Your task to perform on an android device: Clear the shopping cart on target.com. Search for "usb-a" on target.com, select the first entry, and add it to the cart. Image 0: 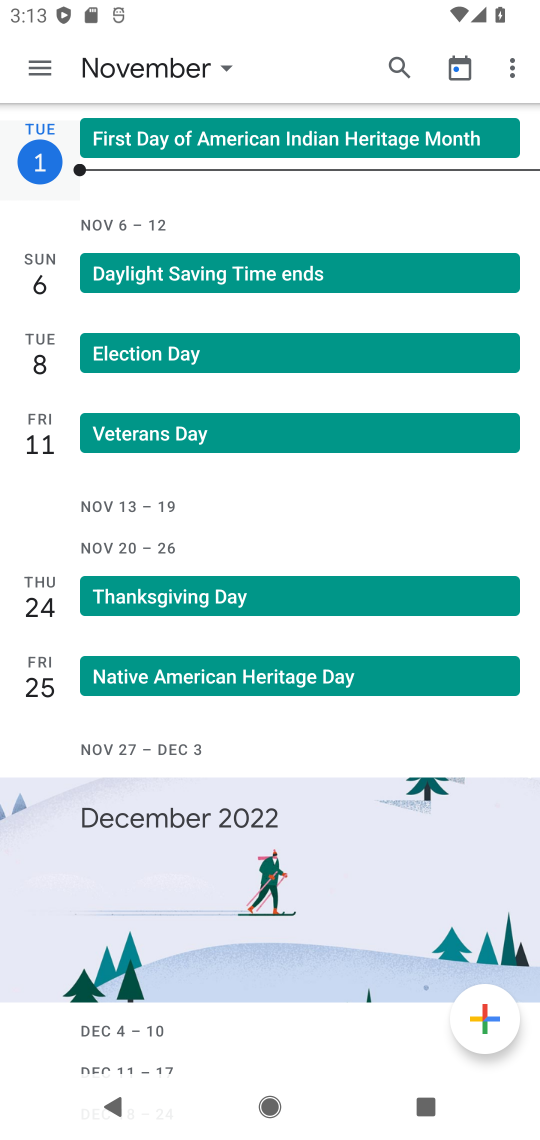
Step 0: press home button
Your task to perform on an android device: Clear the shopping cart on target.com. Search for "usb-a" on target.com, select the first entry, and add it to the cart. Image 1: 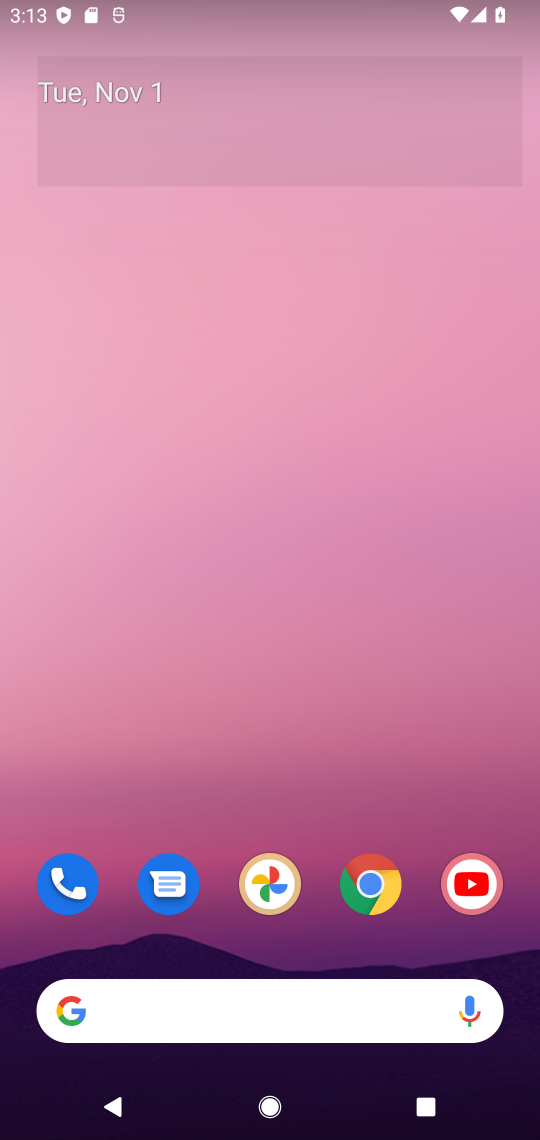
Step 1: click (380, 884)
Your task to perform on an android device: Clear the shopping cart on target.com. Search for "usb-a" on target.com, select the first entry, and add it to the cart. Image 2: 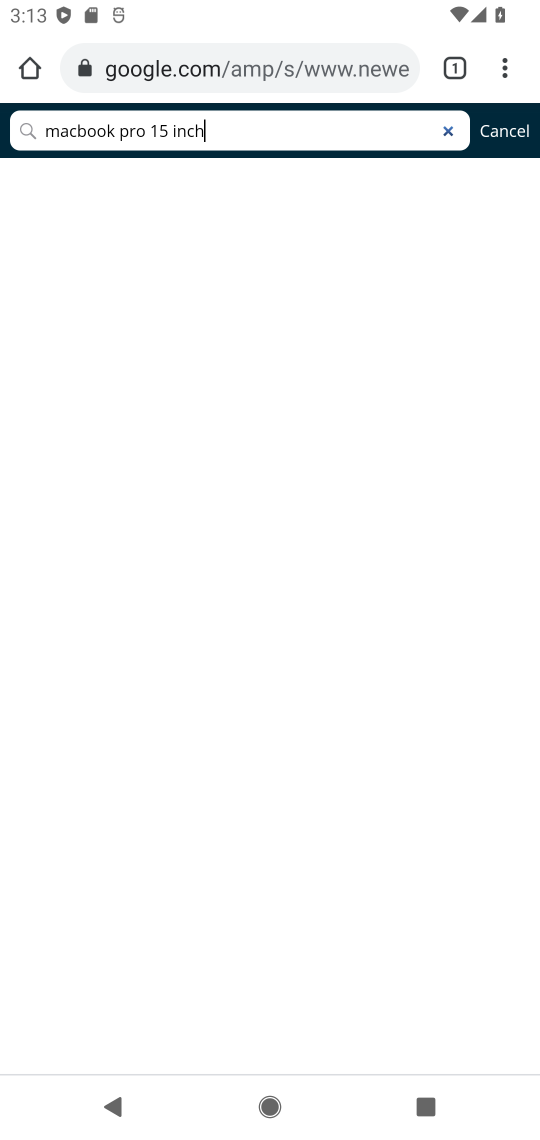
Step 2: click (253, 72)
Your task to perform on an android device: Clear the shopping cart on target.com. Search for "usb-a" on target.com, select the first entry, and add it to the cart. Image 3: 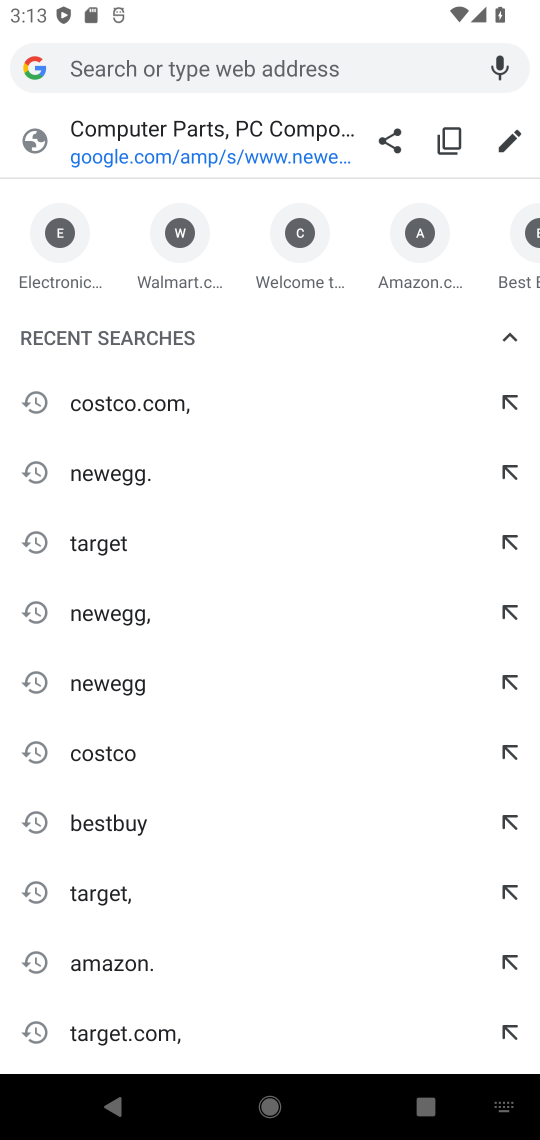
Step 3: click (100, 889)
Your task to perform on an android device: Clear the shopping cart on target.com. Search for "usb-a" on target.com, select the first entry, and add it to the cart. Image 4: 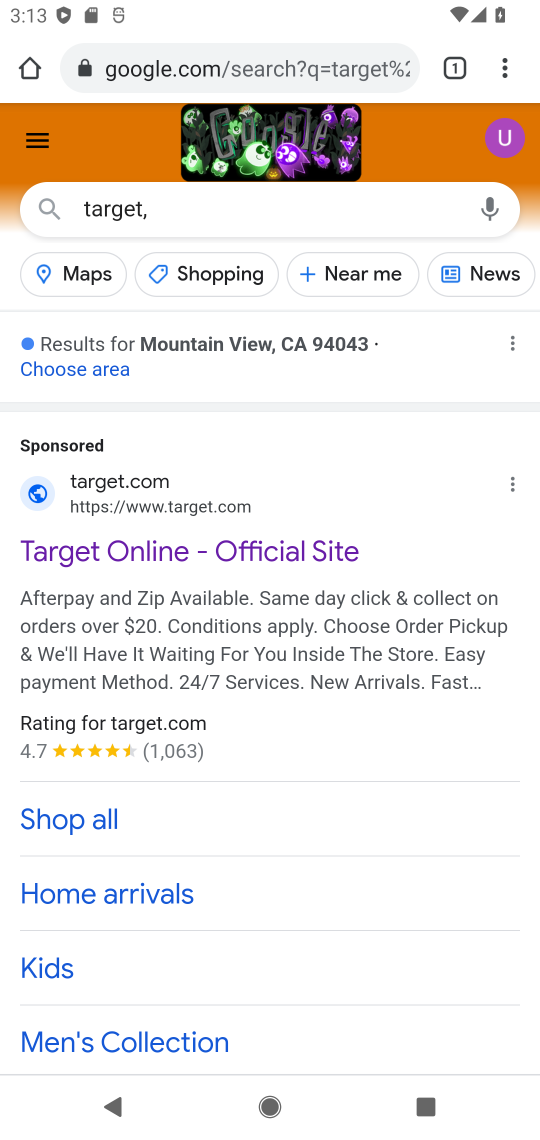
Step 4: click (142, 478)
Your task to perform on an android device: Clear the shopping cart on target.com. Search for "usb-a" on target.com, select the first entry, and add it to the cart. Image 5: 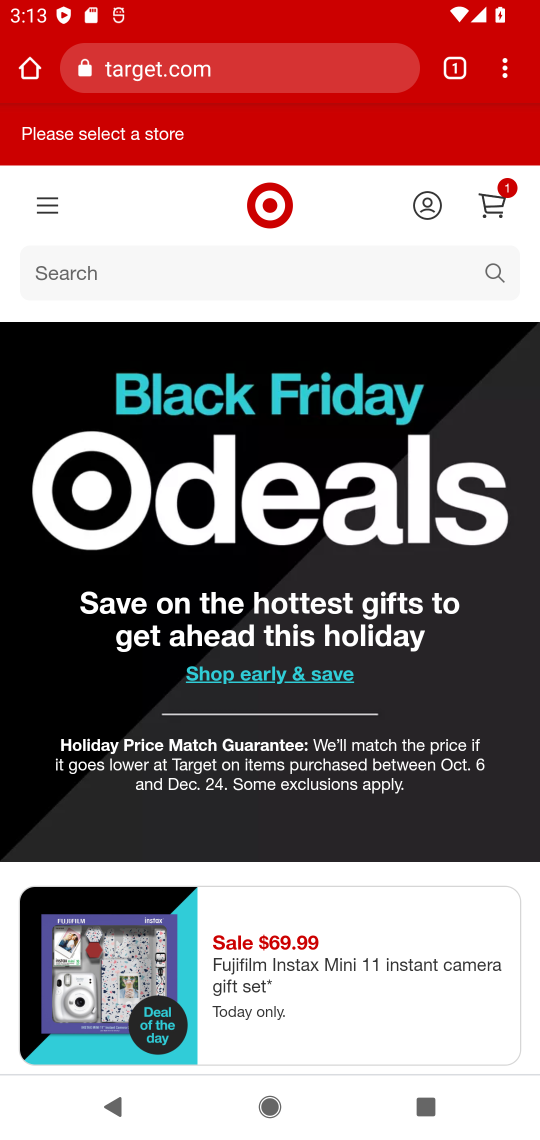
Step 5: click (487, 204)
Your task to perform on an android device: Clear the shopping cart on target.com. Search for "usb-a" on target.com, select the first entry, and add it to the cart. Image 6: 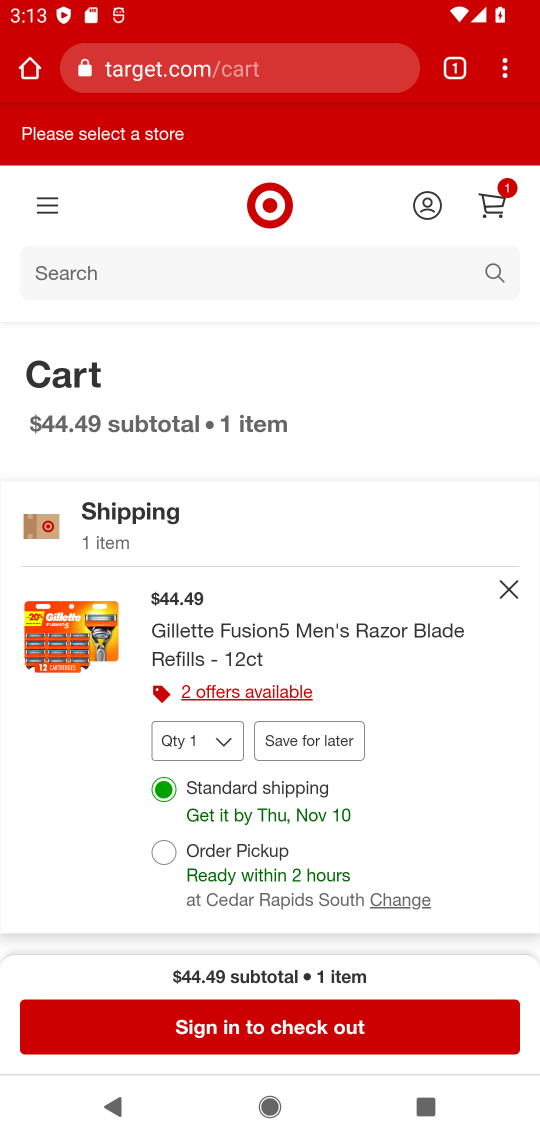
Step 6: click (508, 585)
Your task to perform on an android device: Clear the shopping cart on target.com. Search for "usb-a" on target.com, select the first entry, and add it to the cart. Image 7: 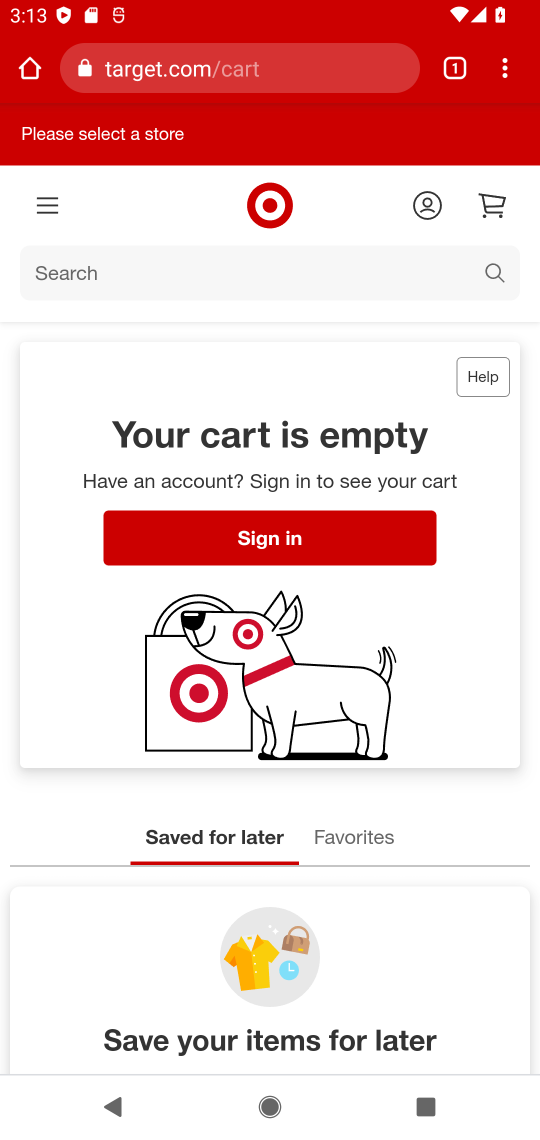
Step 7: click (494, 268)
Your task to perform on an android device: Clear the shopping cart on target.com. Search for "usb-a" on target.com, select the first entry, and add it to the cart. Image 8: 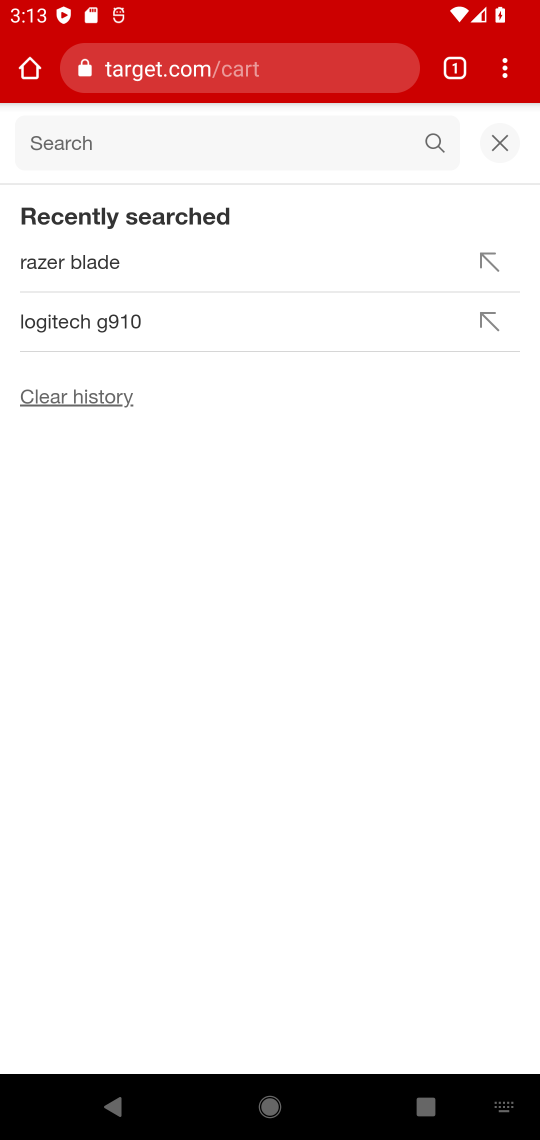
Step 8: type "usb-a"
Your task to perform on an android device: Clear the shopping cart on target.com. Search for "usb-a" on target.com, select the first entry, and add it to the cart. Image 9: 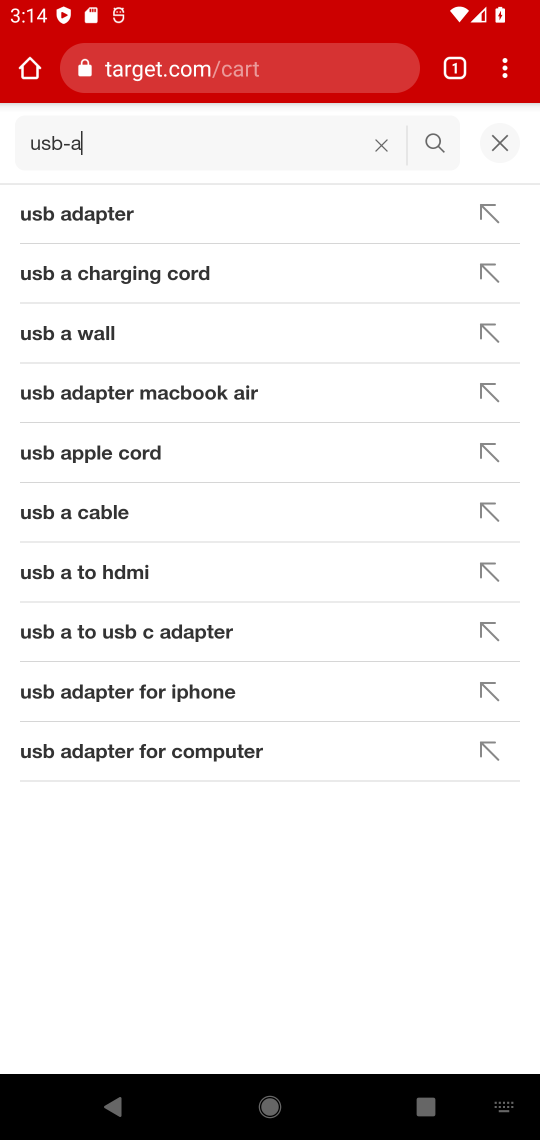
Step 9: click (251, 140)
Your task to perform on an android device: Clear the shopping cart on target.com. Search for "usb-a" on target.com, select the first entry, and add it to the cart. Image 10: 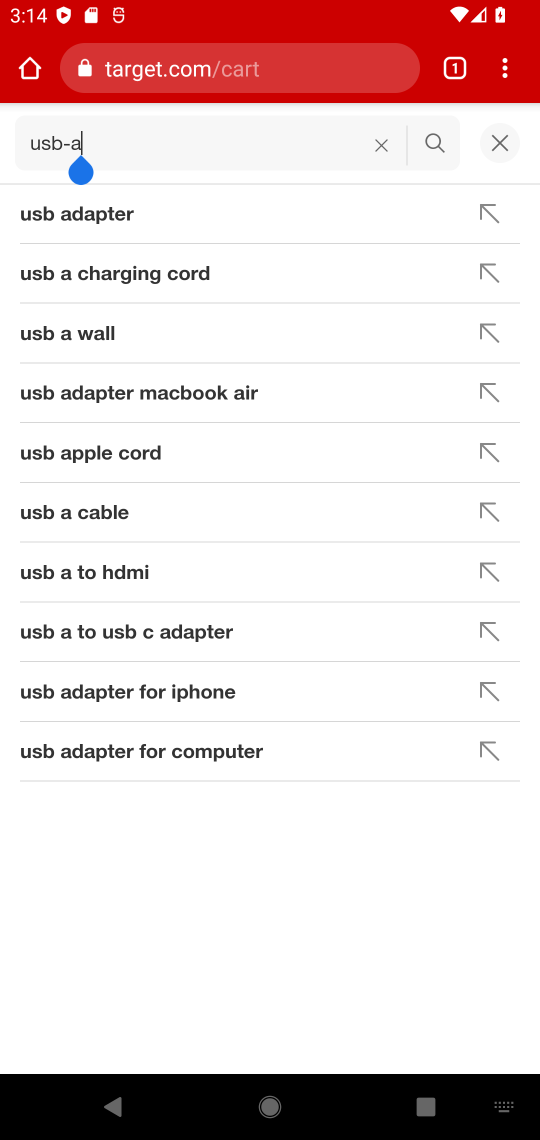
Step 10: click (189, 511)
Your task to perform on an android device: Clear the shopping cart on target.com. Search for "usb-a" on target.com, select the first entry, and add it to the cart. Image 11: 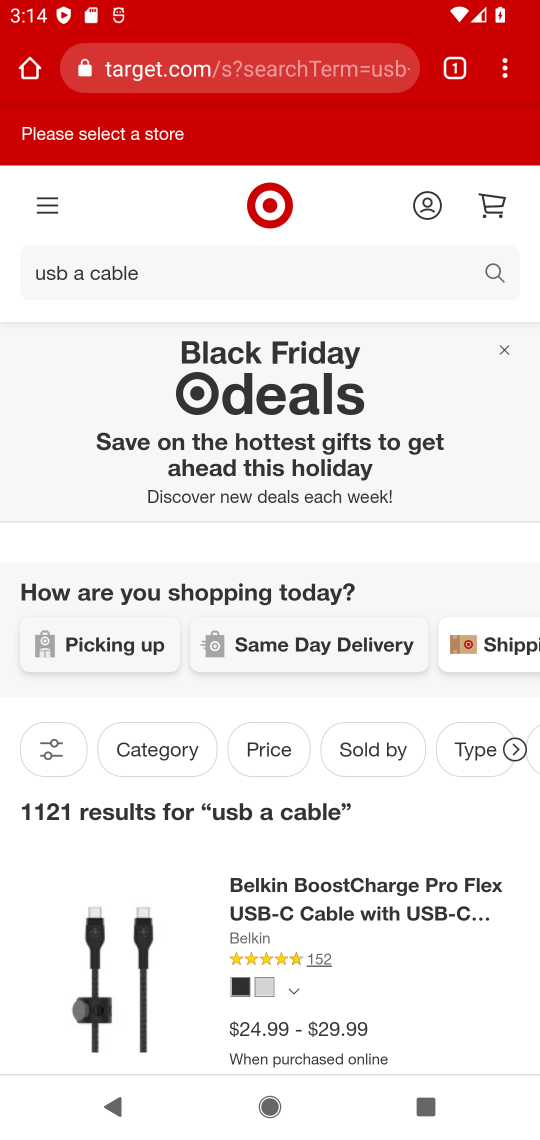
Step 11: drag from (364, 904) to (408, 544)
Your task to perform on an android device: Clear the shopping cart on target.com. Search for "usb-a" on target.com, select the first entry, and add it to the cart. Image 12: 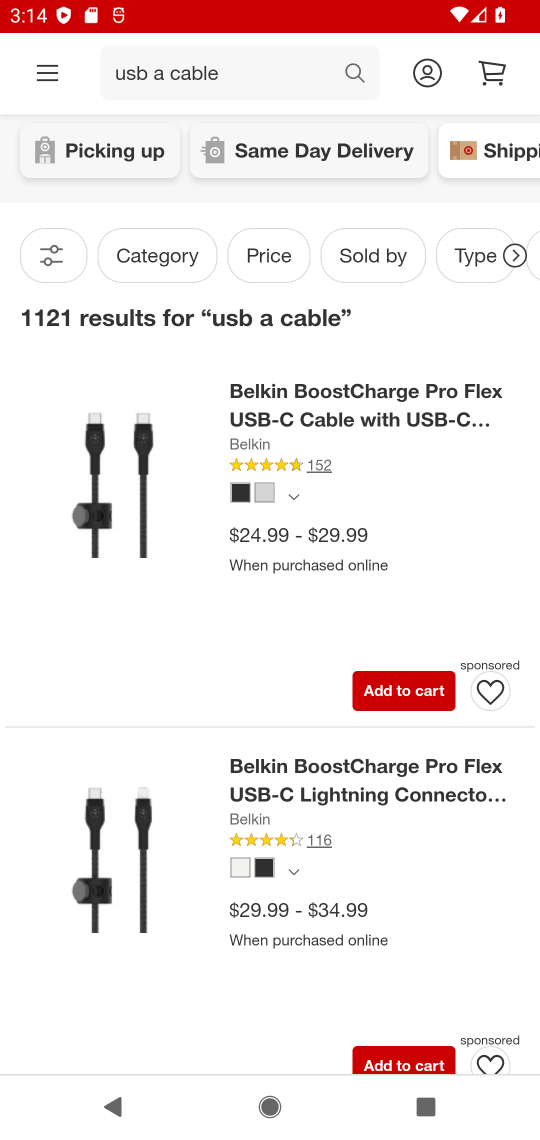
Step 12: drag from (411, 443) to (410, 850)
Your task to perform on an android device: Clear the shopping cart on target.com. Search for "usb-a" on target.com, select the first entry, and add it to the cart. Image 13: 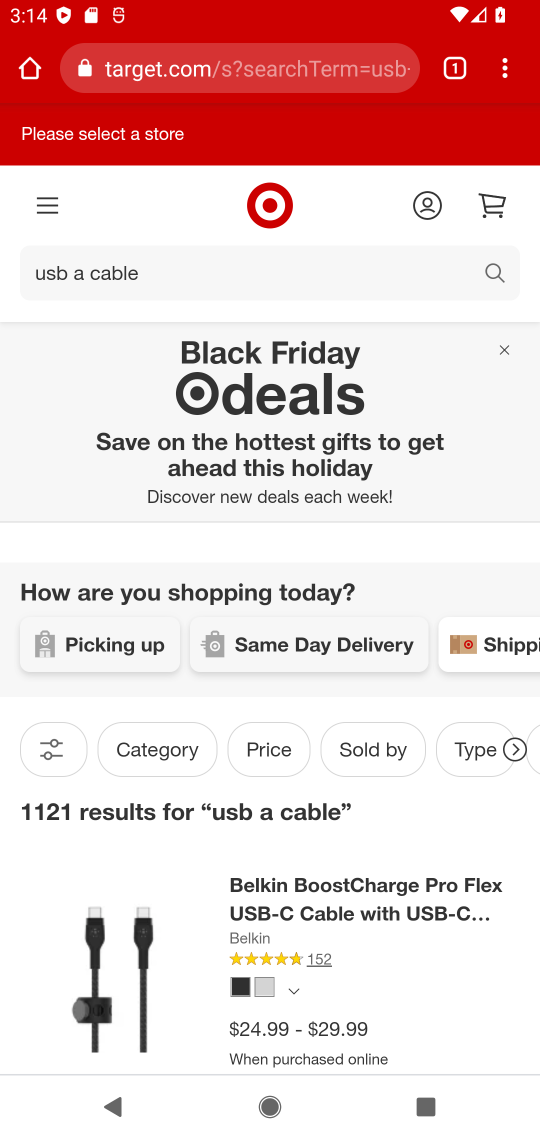
Step 13: click (102, 941)
Your task to perform on an android device: Clear the shopping cart on target.com. Search for "usb-a" on target.com, select the first entry, and add it to the cart. Image 14: 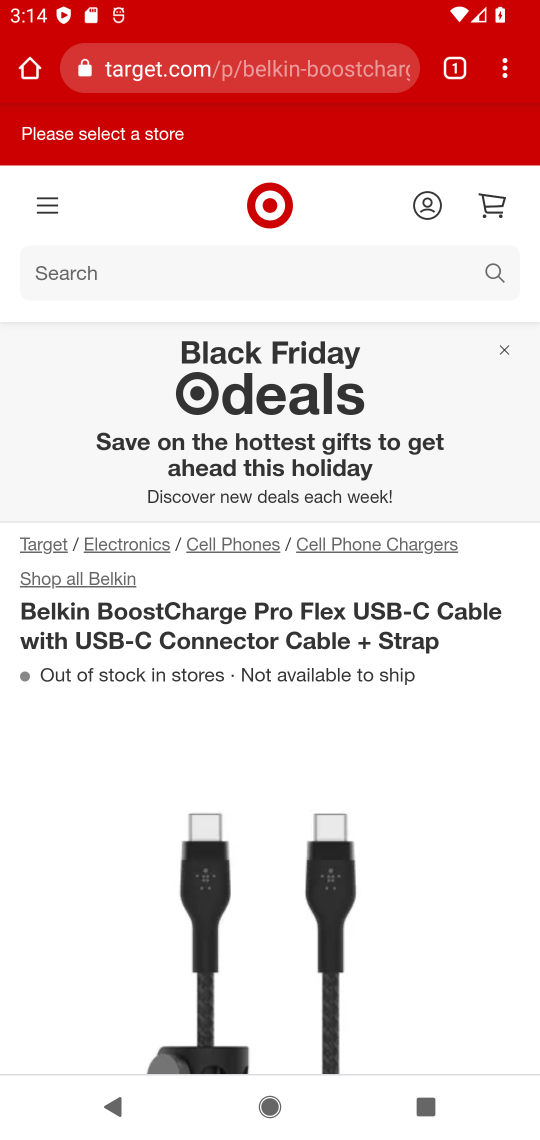
Step 14: drag from (310, 898) to (256, 279)
Your task to perform on an android device: Clear the shopping cart on target.com. Search for "usb-a" on target.com, select the first entry, and add it to the cart. Image 15: 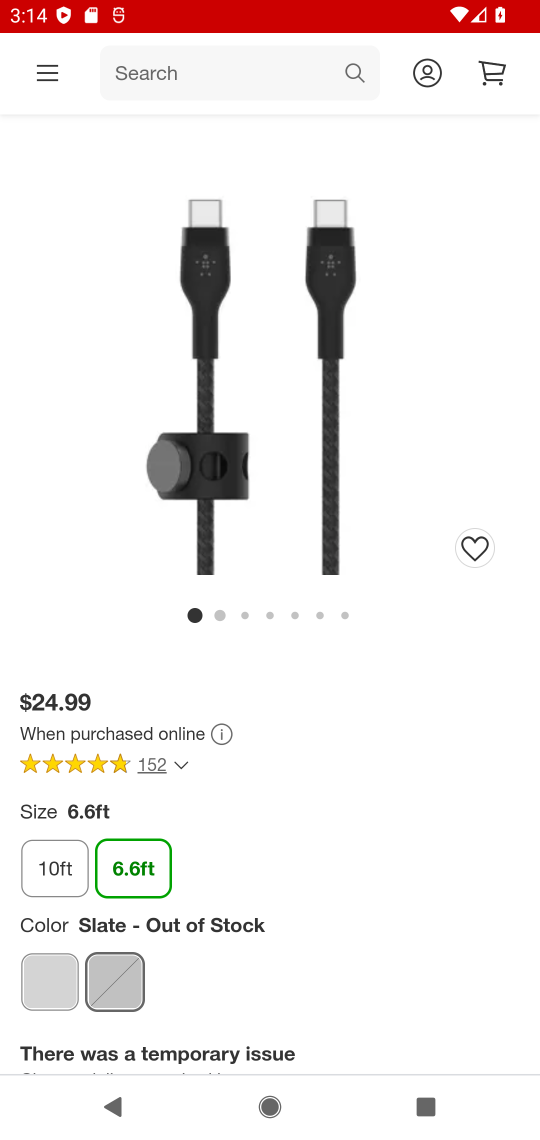
Step 15: drag from (326, 884) to (298, 281)
Your task to perform on an android device: Clear the shopping cart on target.com. Search for "usb-a" on target.com, select the first entry, and add it to the cart. Image 16: 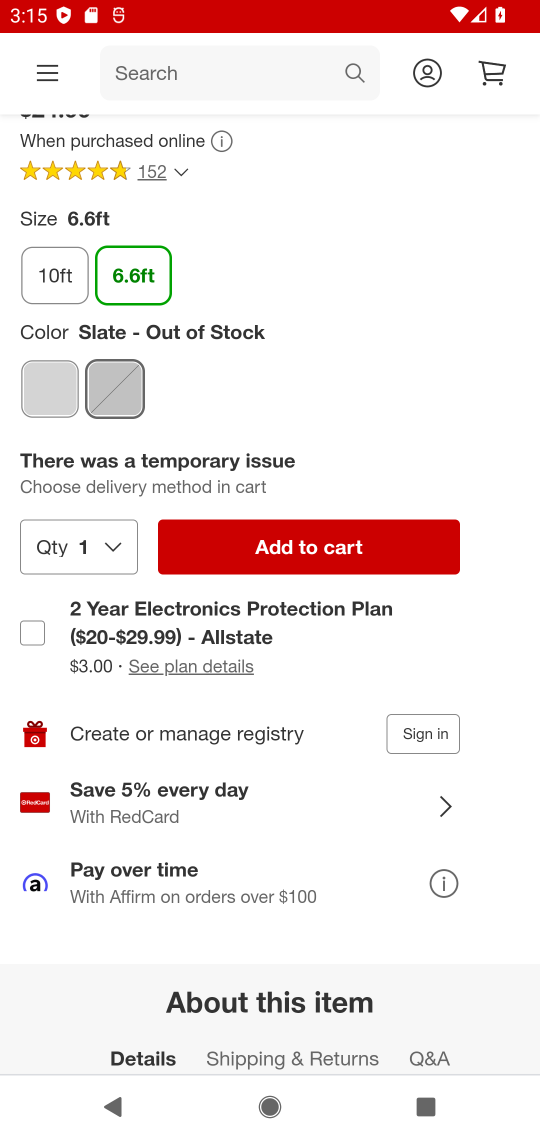
Step 16: click (337, 549)
Your task to perform on an android device: Clear the shopping cart on target.com. Search for "usb-a" on target.com, select the first entry, and add it to the cart. Image 17: 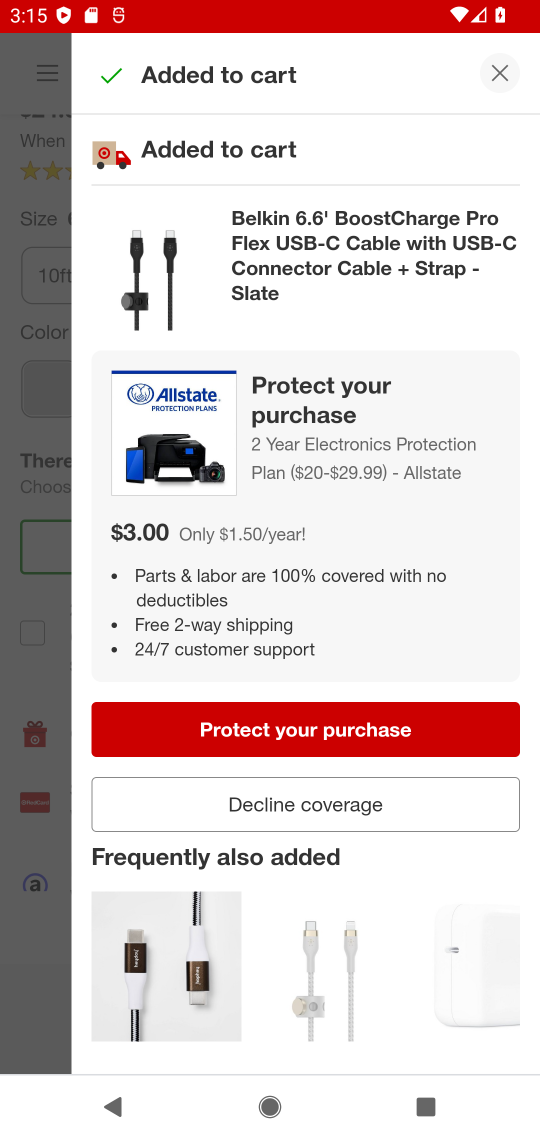
Step 17: task complete